Your task to perform on an android device: Open display settings Image 0: 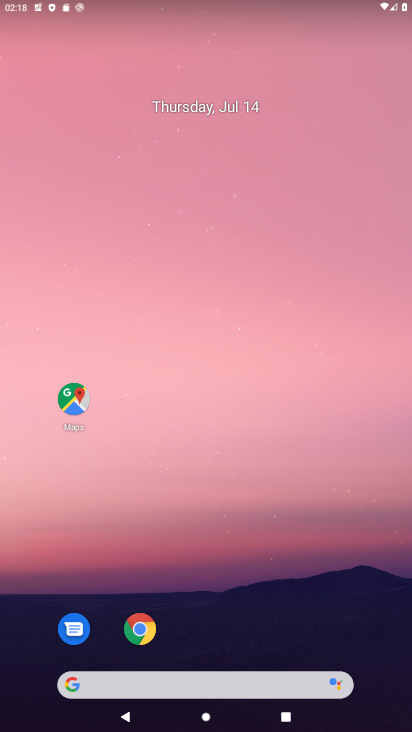
Step 0: drag from (246, 624) to (259, 15)
Your task to perform on an android device: Open display settings Image 1: 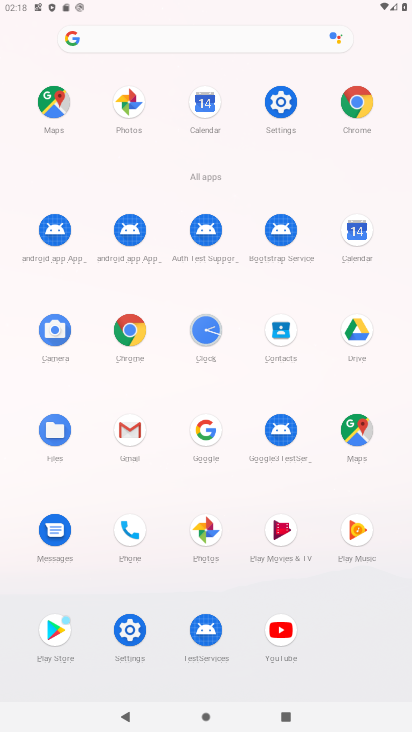
Step 1: click (138, 652)
Your task to perform on an android device: Open display settings Image 2: 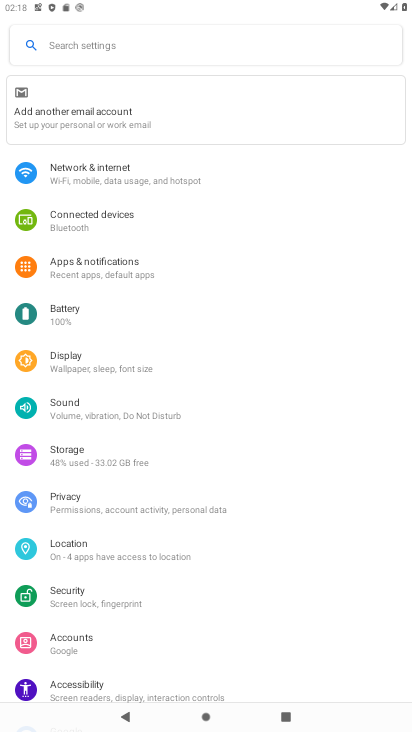
Step 2: click (112, 368)
Your task to perform on an android device: Open display settings Image 3: 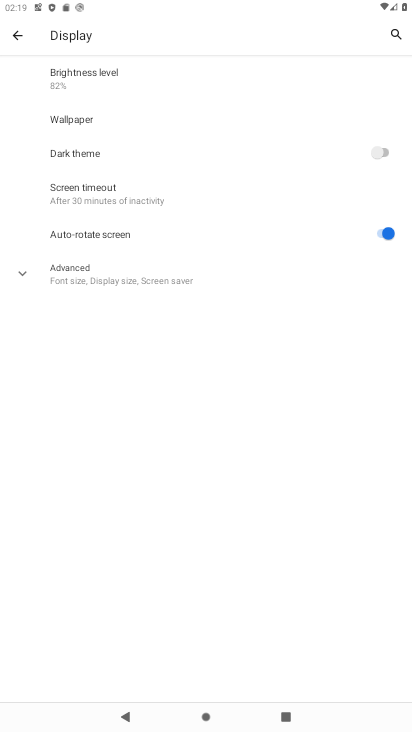
Step 3: task complete